Your task to perform on an android device: turn on location history Image 0: 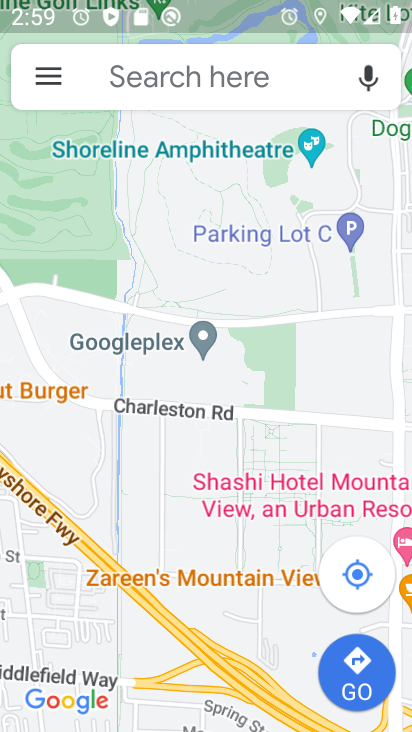
Step 0: press back button
Your task to perform on an android device: turn on location history Image 1: 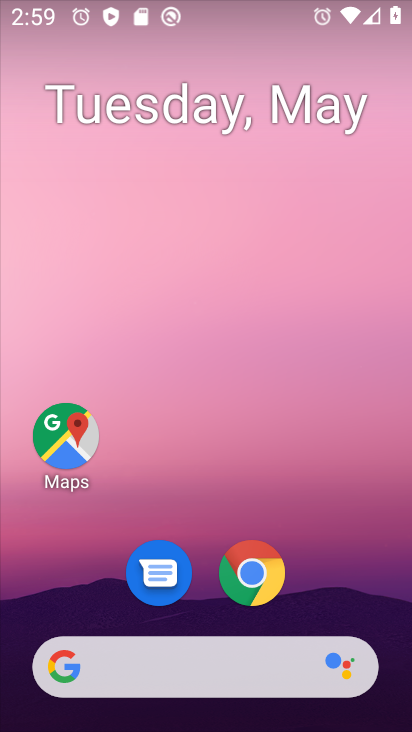
Step 1: drag from (365, 538) to (299, 51)
Your task to perform on an android device: turn on location history Image 2: 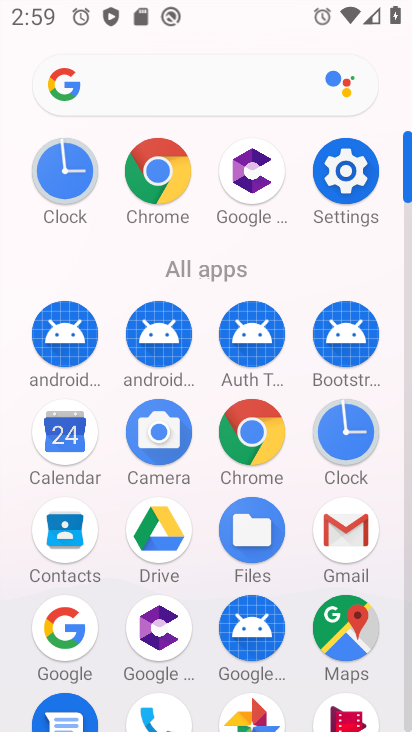
Step 2: click (347, 170)
Your task to perform on an android device: turn on location history Image 3: 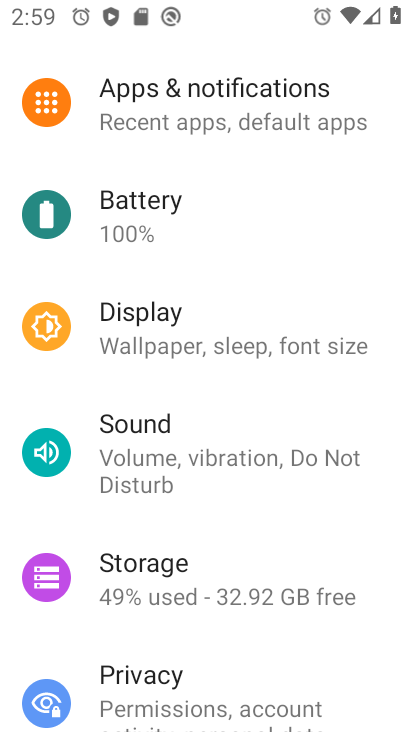
Step 3: drag from (215, 546) to (257, 135)
Your task to perform on an android device: turn on location history Image 4: 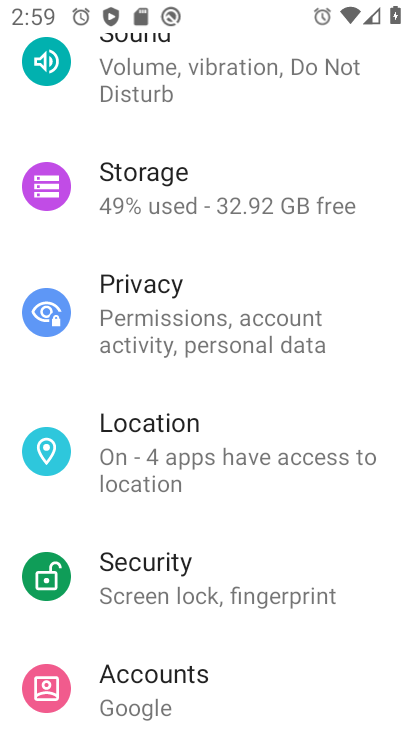
Step 4: drag from (257, 593) to (256, 163)
Your task to perform on an android device: turn on location history Image 5: 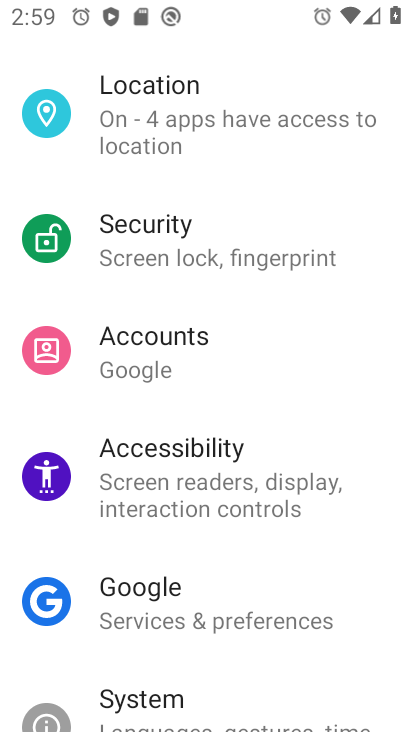
Step 5: drag from (238, 584) to (256, 156)
Your task to perform on an android device: turn on location history Image 6: 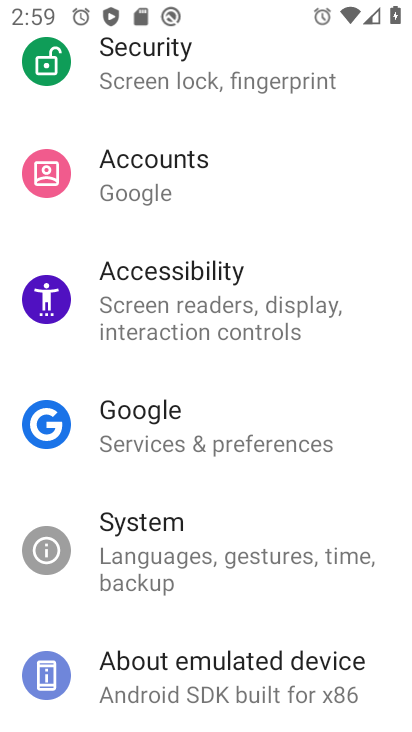
Step 6: drag from (227, 161) to (182, 581)
Your task to perform on an android device: turn on location history Image 7: 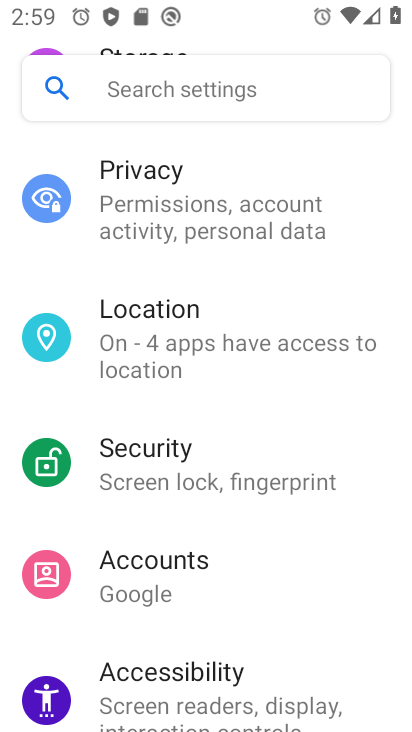
Step 7: click (175, 310)
Your task to perform on an android device: turn on location history Image 8: 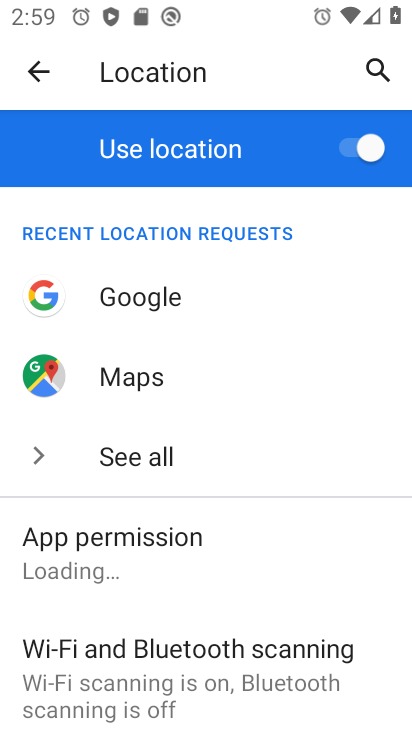
Step 8: drag from (233, 553) to (233, 208)
Your task to perform on an android device: turn on location history Image 9: 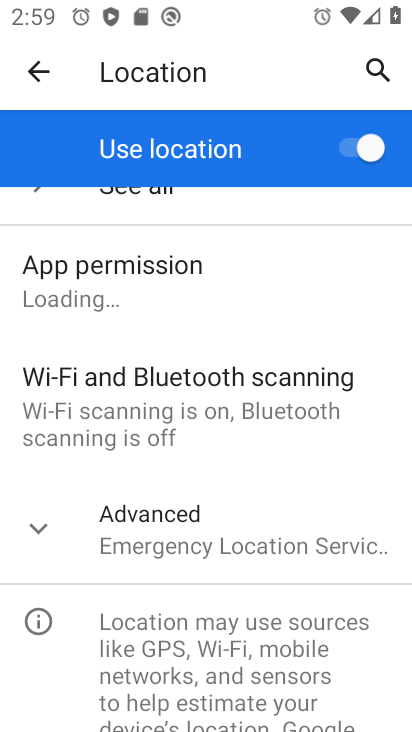
Step 9: click (123, 498)
Your task to perform on an android device: turn on location history Image 10: 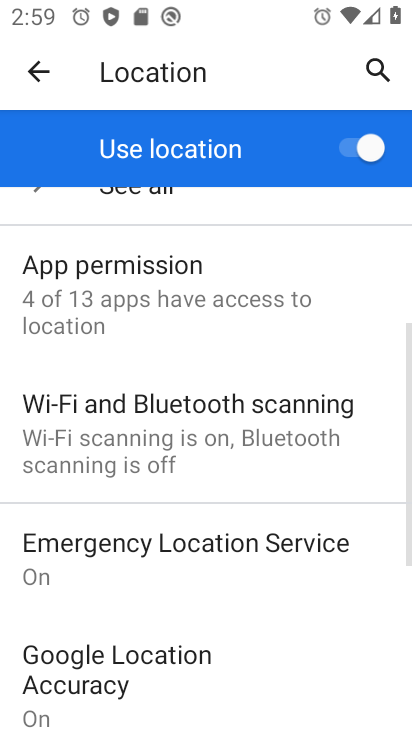
Step 10: drag from (273, 589) to (242, 263)
Your task to perform on an android device: turn on location history Image 11: 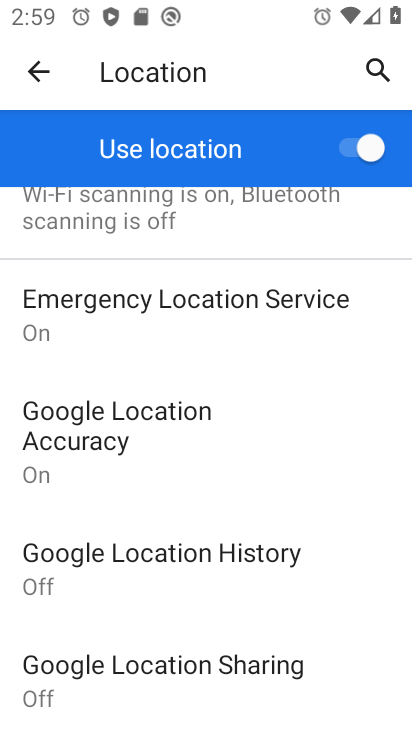
Step 11: drag from (222, 589) to (256, 201)
Your task to perform on an android device: turn on location history Image 12: 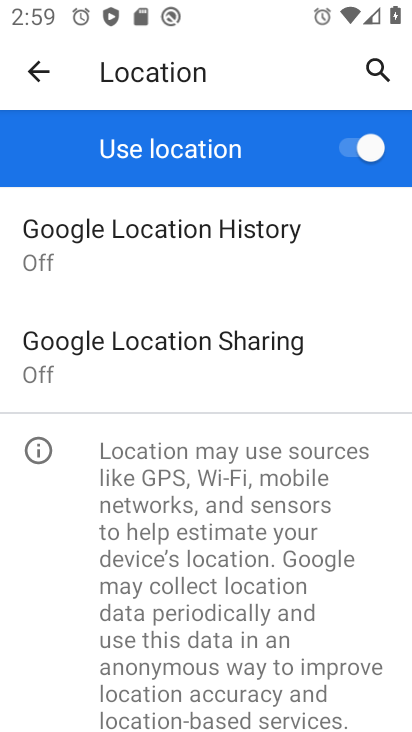
Step 12: drag from (236, 300) to (213, 531)
Your task to perform on an android device: turn on location history Image 13: 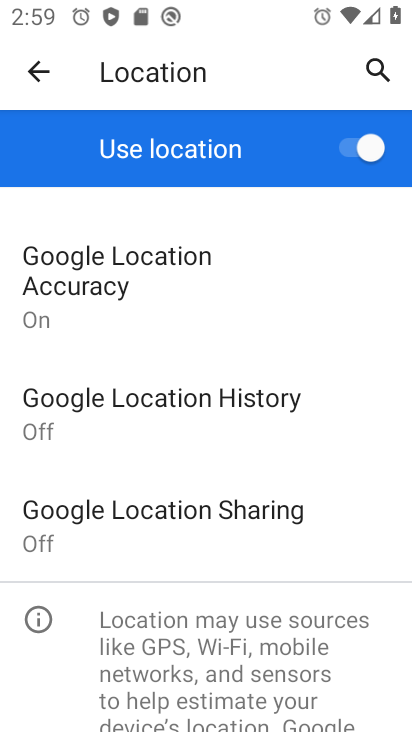
Step 13: click (143, 390)
Your task to perform on an android device: turn on location history Image 14: 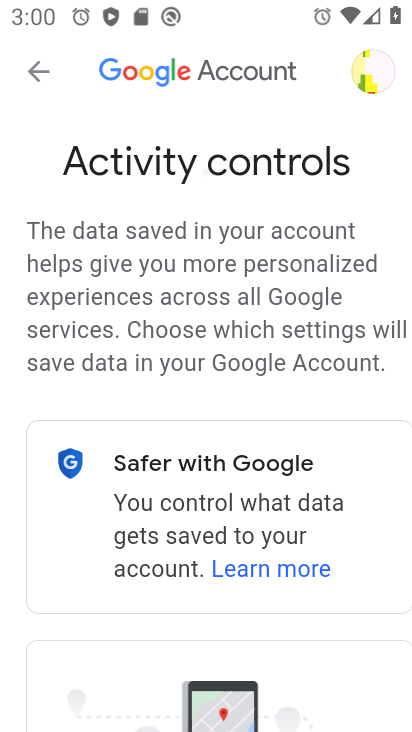
Step 14: task complete